Your task to perform on an android device: add a contact in the contacts app Image 0: 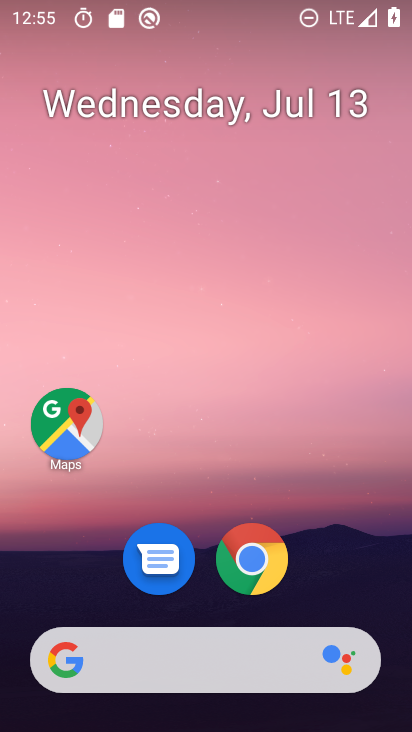
Step 0: drag from (183, 697) to (286, 269)
Your task to perform on an android device: add a contact in the contacts app Image 1: 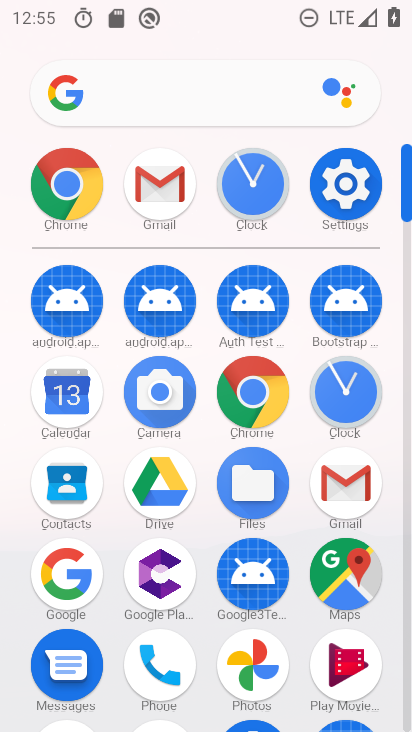
Step 1: click (68, 497)
Your task to perform on an android device: add a contact in the contacts app Image 2: 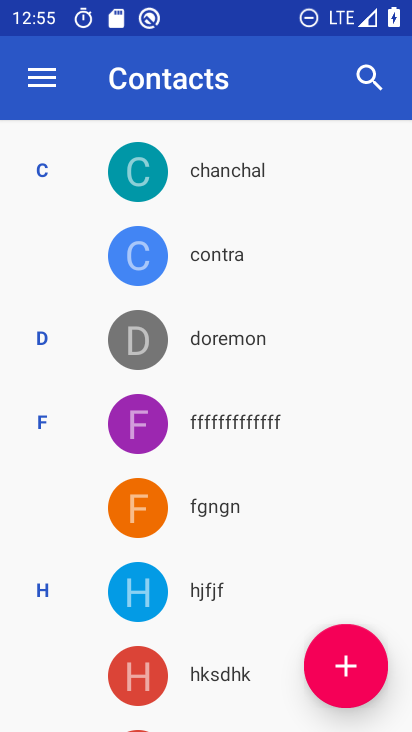
Step 2: click (344, 671)
Your task to perform on an android device: add a contact in the contacts app Image 3: 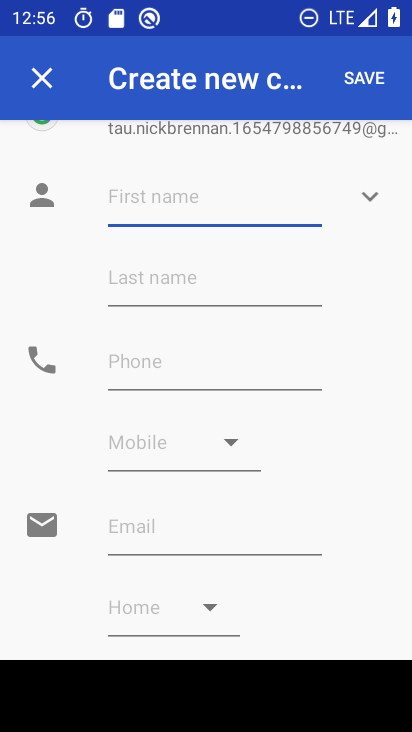
Step 3: type "vjvjvbhj"
Your task to perform on an android device: add a contact in the contacts app Image 4: 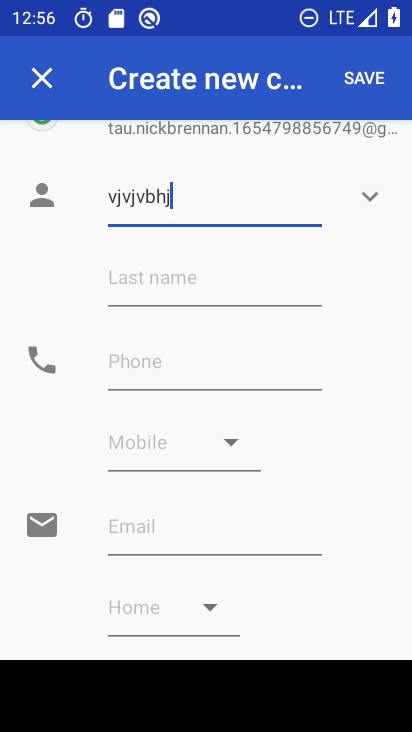
Step 4: click (183, 375)
Your task to perform on an android device: add a contact in the contacts app Image 5: 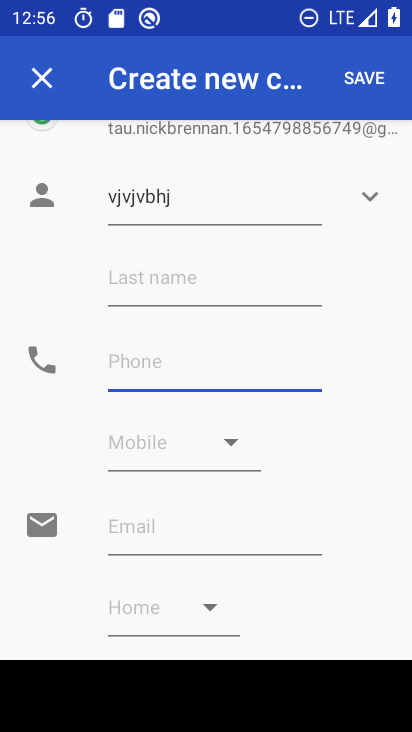
Step 5: type "98687586"
Your task to perform on an android device: add a contact in the contacts app Image 6: 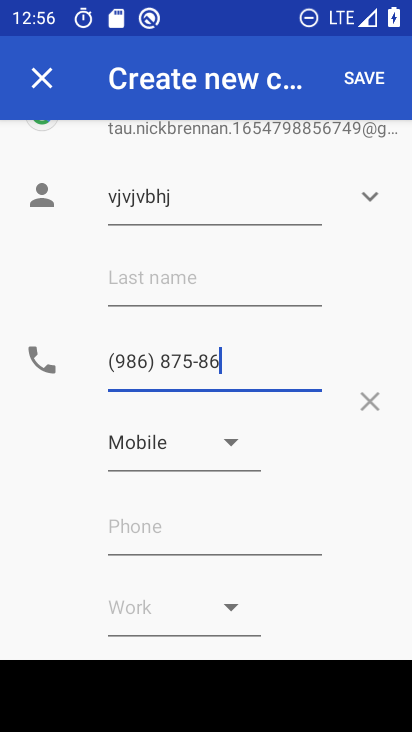
Step 6: click (353, 87)
Your task to perform on an android device: add a contact in the contacts app Image 7: 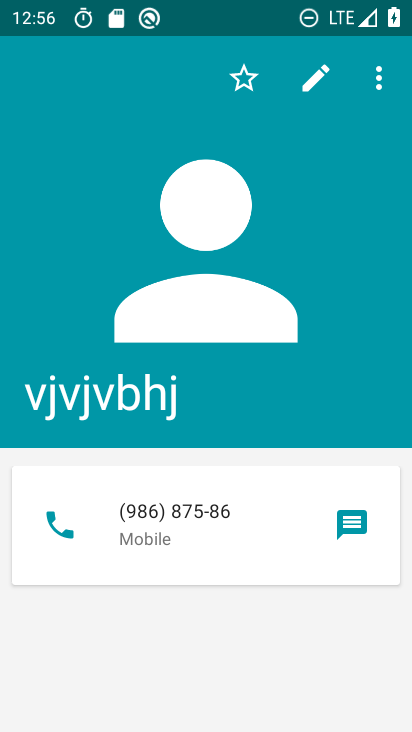
Step 7: task complete